Your task to perform on an android device: Go to Reddit.com Image 0: 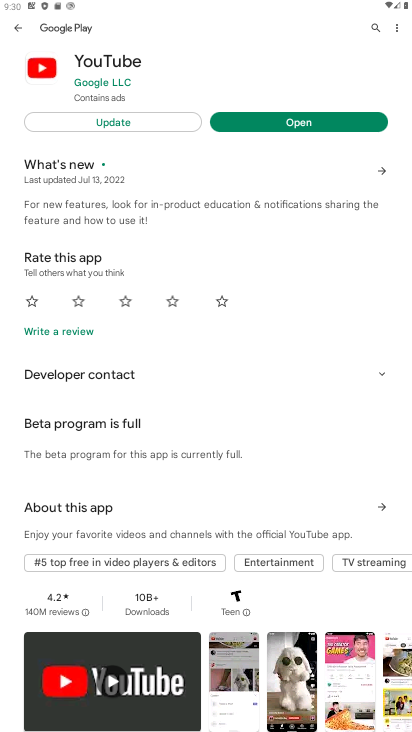
Step 0: press home button
Your task to perform on an android device: Go to Reddit.com Image 1: 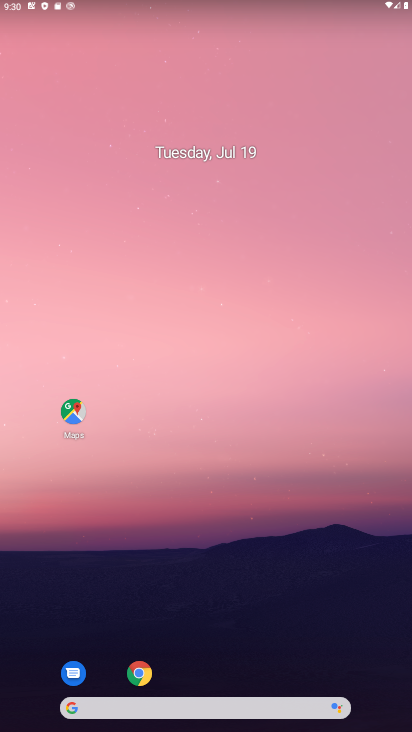
Step 1: click (139, 682)
Your task to perform on an android device: Go to Reddit.com Image 2: 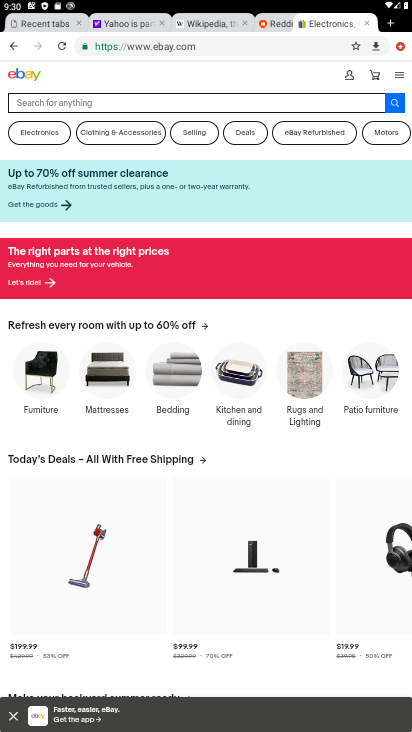
Step 2: click (397, 24)
Your task to perform on an android device: Go to Reddit.com Image 3: 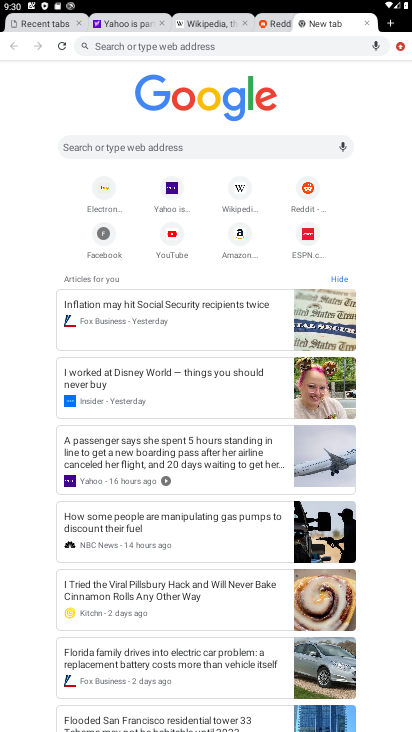
Step 3: click (200, 150)
Your task to perform on an android device: Go to Reddit.com Image 4: 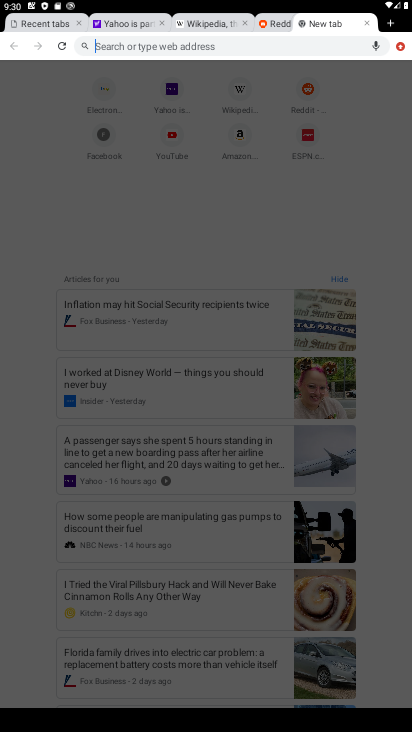
Step 4: type "Reddit.com"
Your task to perform on an android device: Go to Reddit.com Image 5: 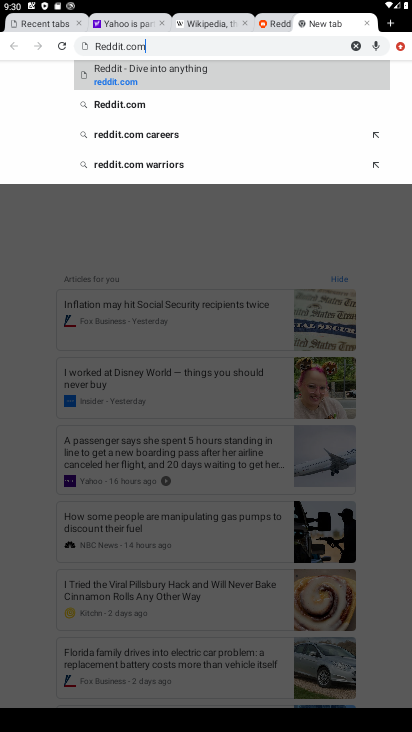
Step 5: click (193, 82)
Your task to perform on an android device: Go to Reddit.com Image 6: 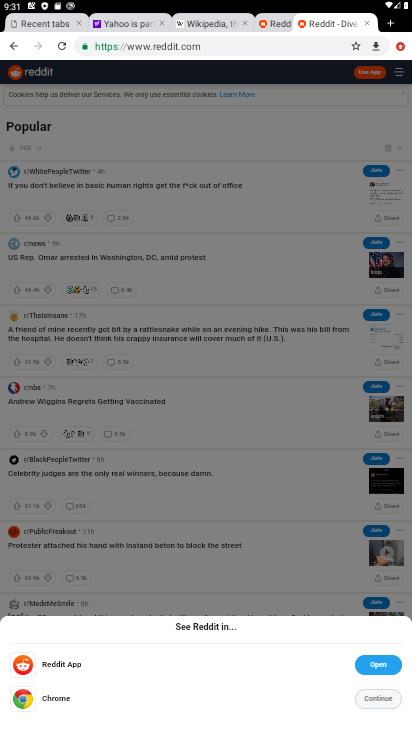
Step 6: task complete